Your task to perform on an android device: Open Chrome and go to settings Image 0: 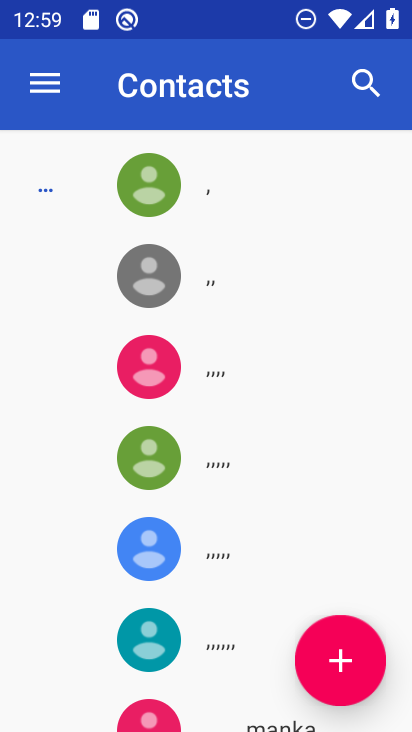
Step 0: press home button
Your task to perform on an android device: Open Chrome and go to settings Image 1: 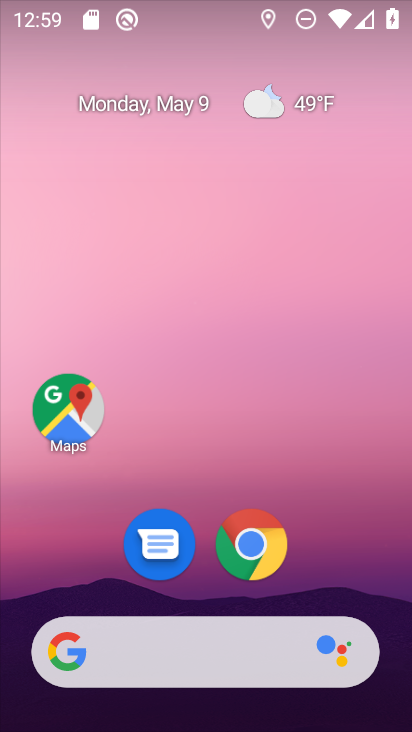
Step 1: click (248, 532)
Your task to perform on an android device: Open Chrome and go to settings Image 2: 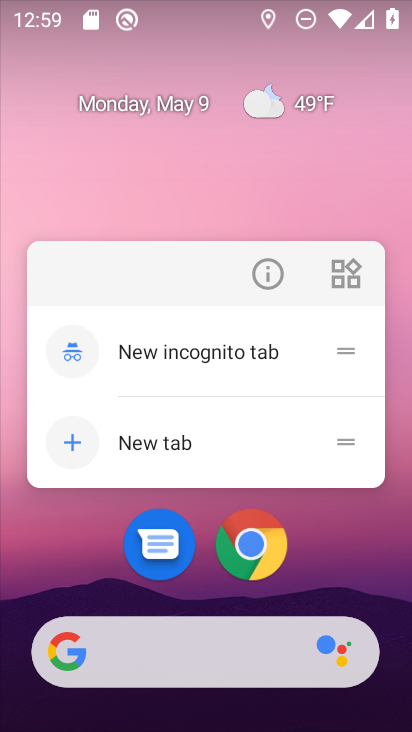
Step 2: click (248, 532)
Your task to perform on an android device: Open Chrome and go to settings Image 3: 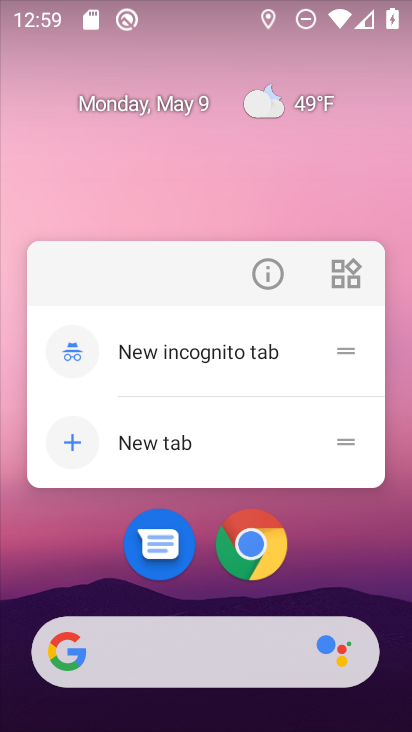
Step 3: drag from (320, 566) to (236, 10)
Your task to perform on an android device: Open Chrome and go to settings Image 4: 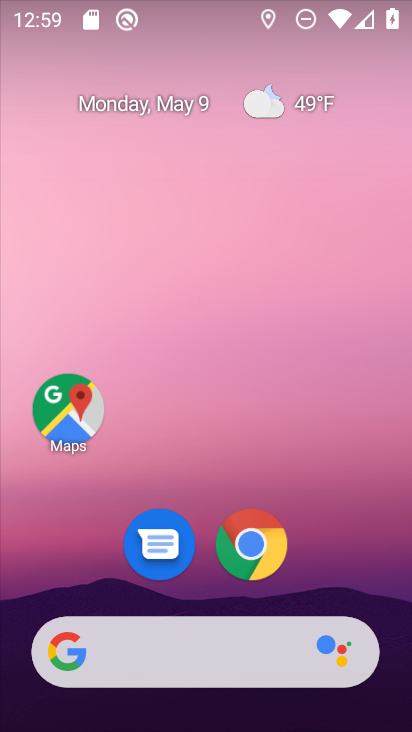
Step 4: drag from (342, 567) to (239, 0)
Your task to perform on an android device: Open Chrome and go to settings Image 5: 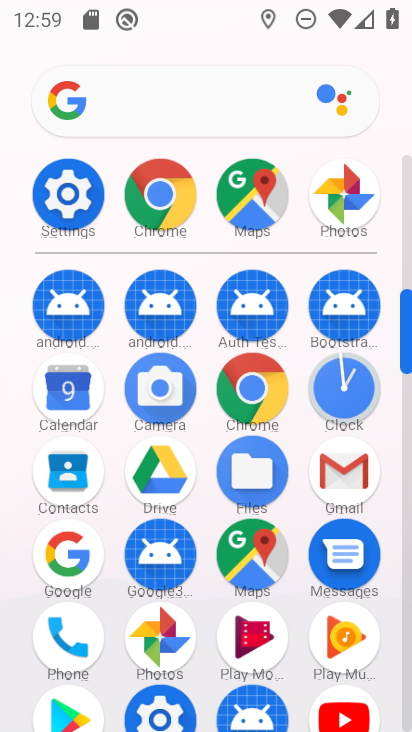
Step 5: click (173, 215)
Your task to perform on an android device: Open Chrome and go to settings Image 6: 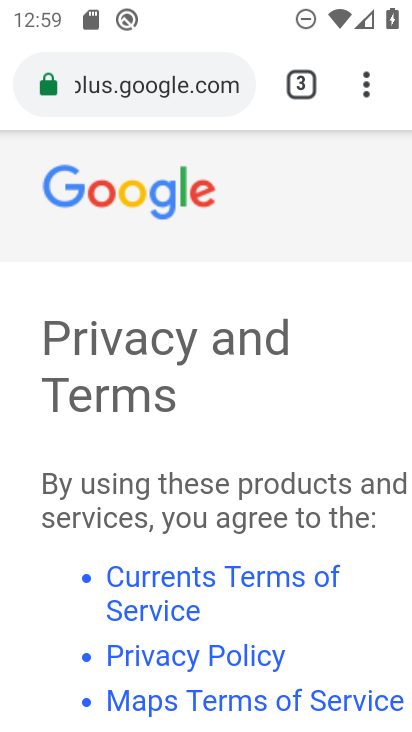
Step 6: task complete